Your task to perform on an android device: change your default location settings in chrome Image 0: 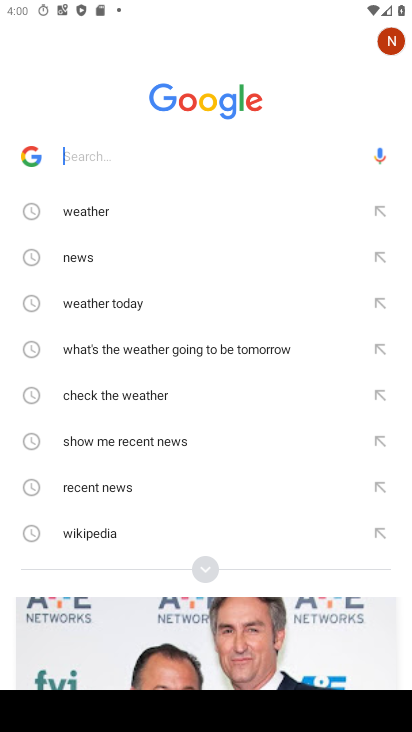
Step 0: press home button
Your task to perform on an android device: change your default location settings in chrome Image 1: 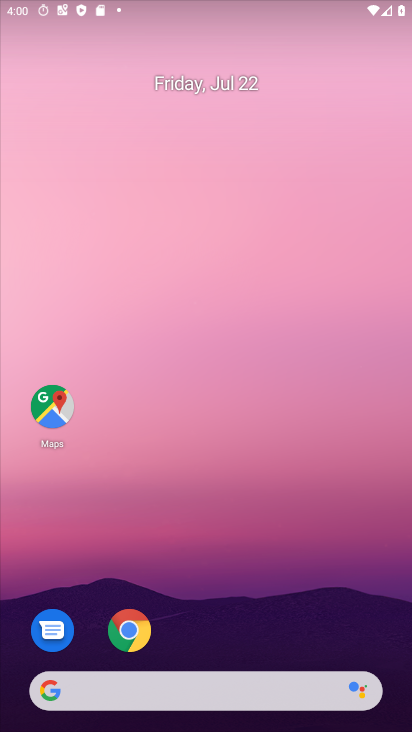
Step 1: drag from (245, 691) to (247, 42)
Your task to perform on an android device: change your default location settings in chrome Image 2: 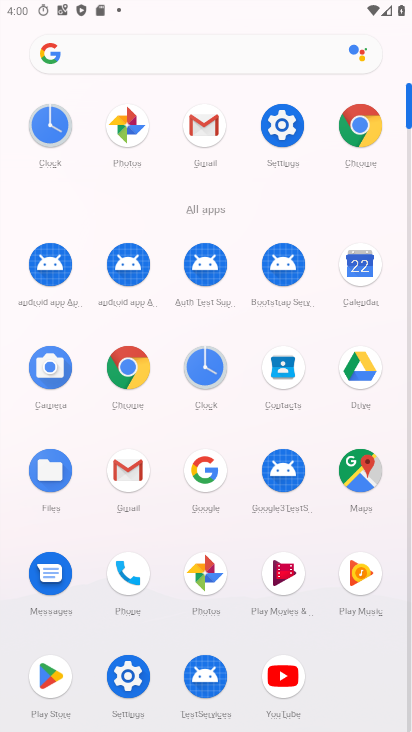
Step 2: click (139, 363)
Your task to perform on an android device: change your default location settings in chrome Image 3: 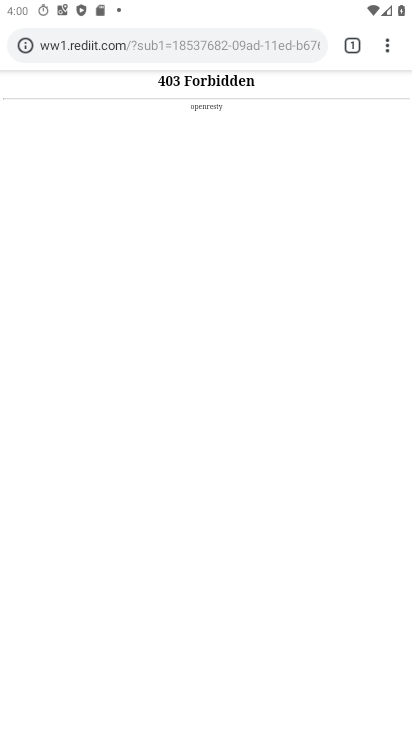
Step 3: drag from (388, 41) to (205, 510)
Your task to perform on an android device: change your default location settings in chrome Image 4: 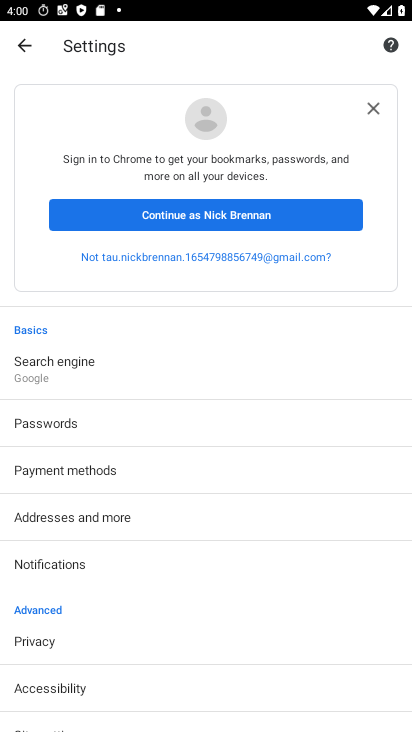
Step 4: drag from (135, 605) to (168, 194)
Your task to perform on an android device: change your default location settings in chrome Image 5: 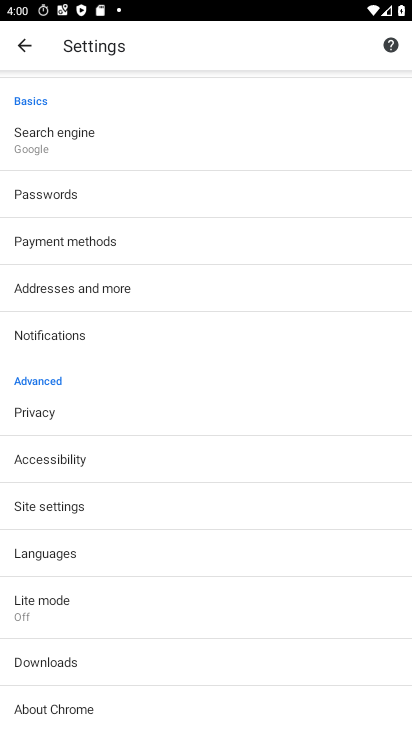
Step 5: click (75, 513)
Your task to perform on an android device: change your default location settings in chrome Image 6: 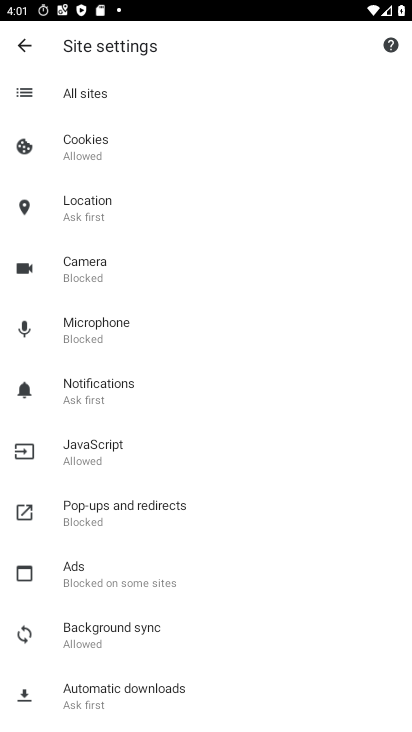
Step 6: click (75, 203)
Your task to perform on an android device: change your default location settings in chrome Image 7: 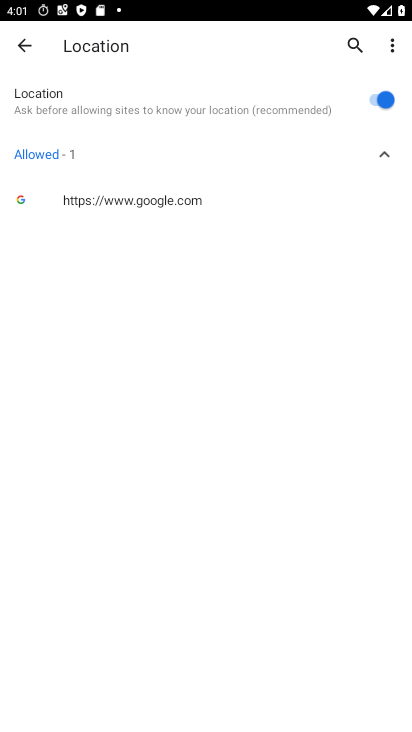
Step 7: click (370, 102)
Your task to perform on an android device: change your default location settings in chrome Image 8: 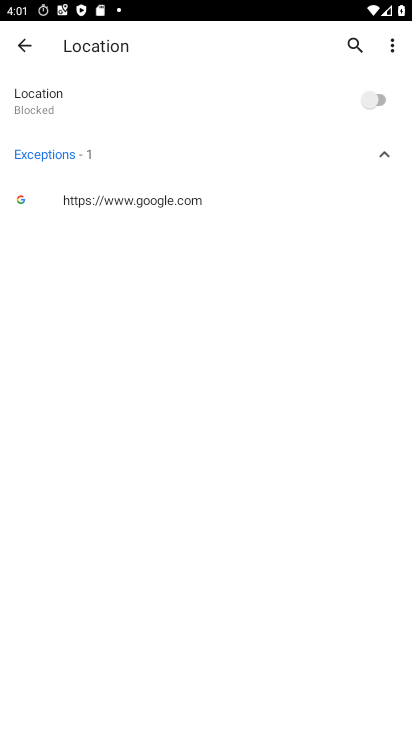
Step 8: task complete